Your task to perform on an android device: Open Google Chrome Image 0: 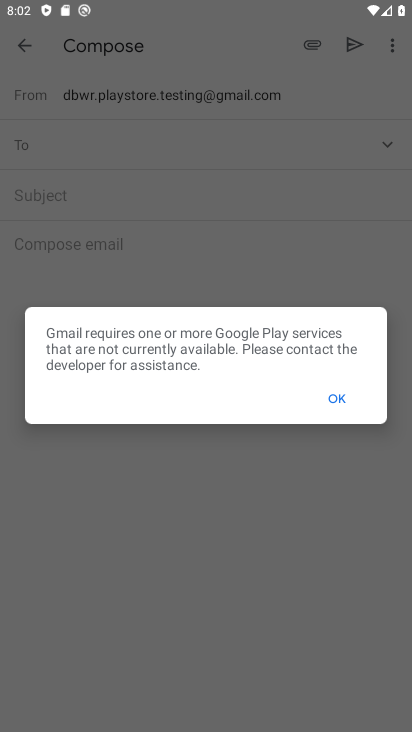
Step 0: press home button
Your task to perform on an android device: Open Google Chrome Image 1: 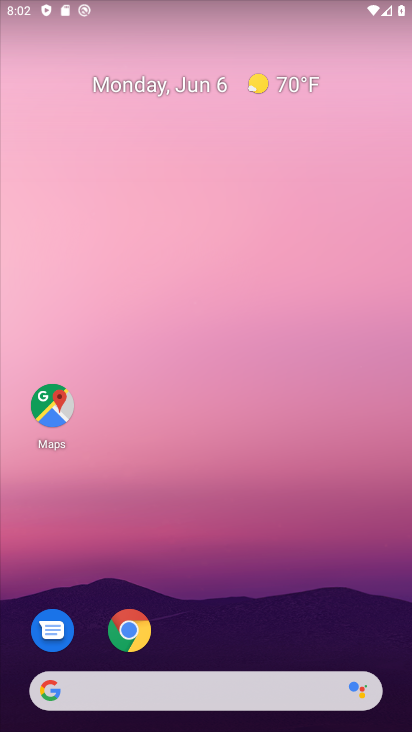
Step 1: click (137, 635)
Your task to perform on an android device: Open Google Chrome Image 2: 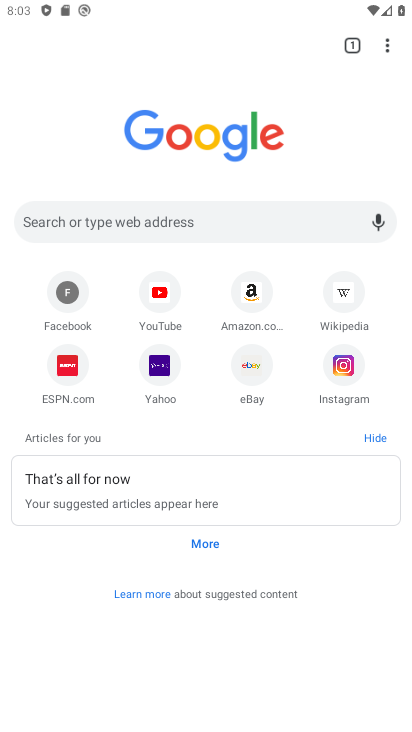
Step 2: task complete